Your task to perform on an android device: Go to Amazon Image 0: 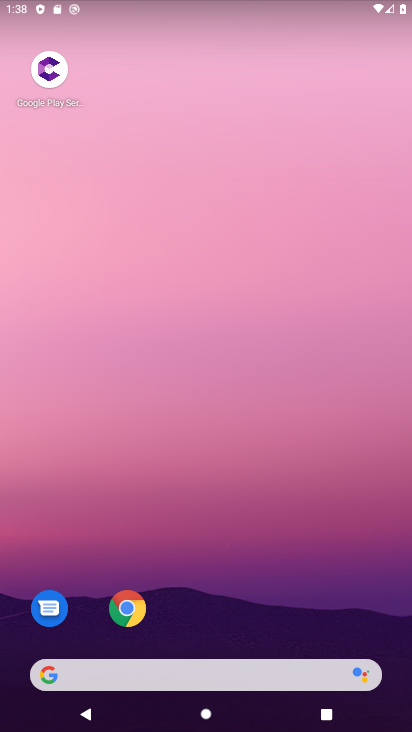
Step 0: click (126, 606)
Your task to perform on an android device: Go to Amazon Image 1: 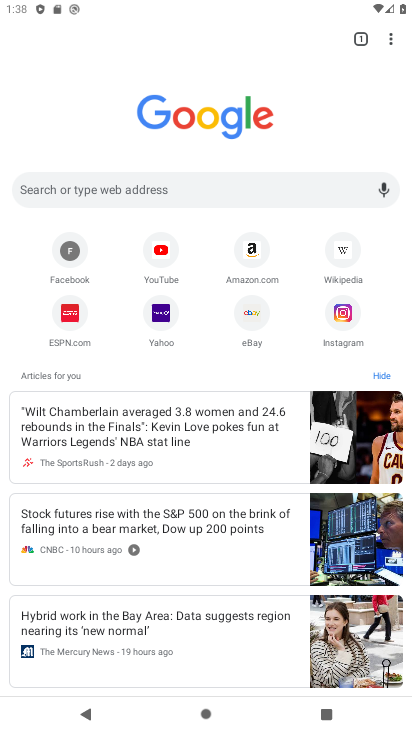
Step 1: click (120, 182)
Your task to perform on an android device: Go to Amazon Image 2: 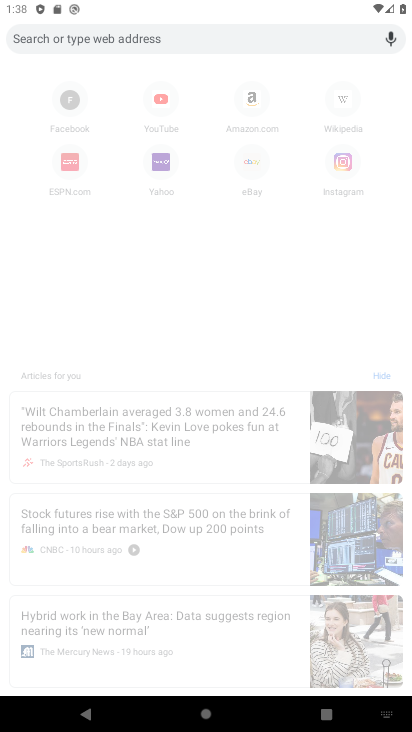
Step 2: type "Amazon"
Your task to perform on an android device: Go to Amazon Image 3: 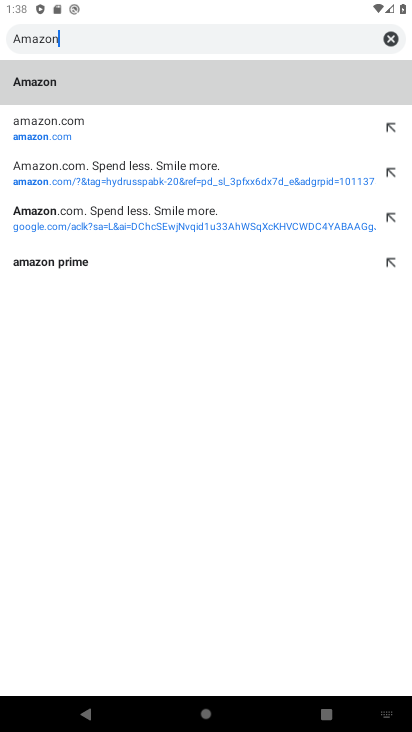
Step 3: click (51, 86)
Your task to perform on an android device: Go to Amazon Image 4: 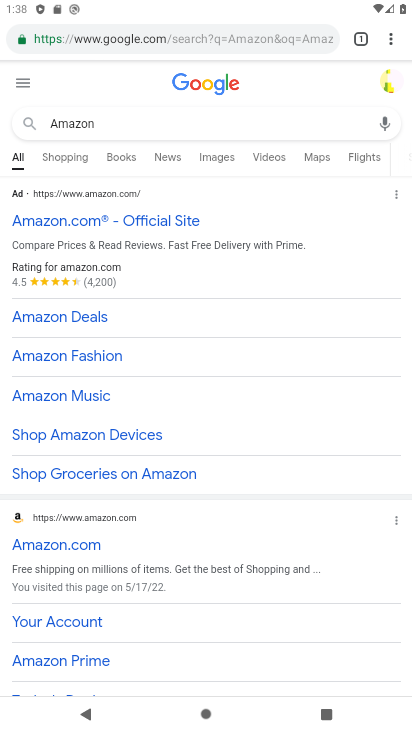
Step 4: click (91, 221)
Your task to perform on an android device: Go to Amazon Image 5: 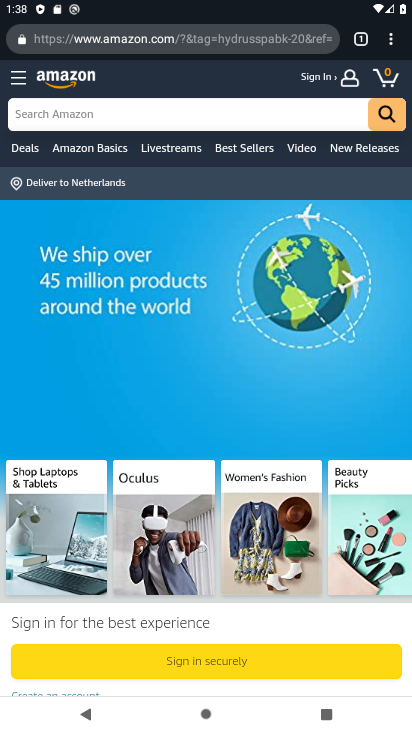
Step 5: task complete